Your task to perform on an android device: Open battery settings Image 0: 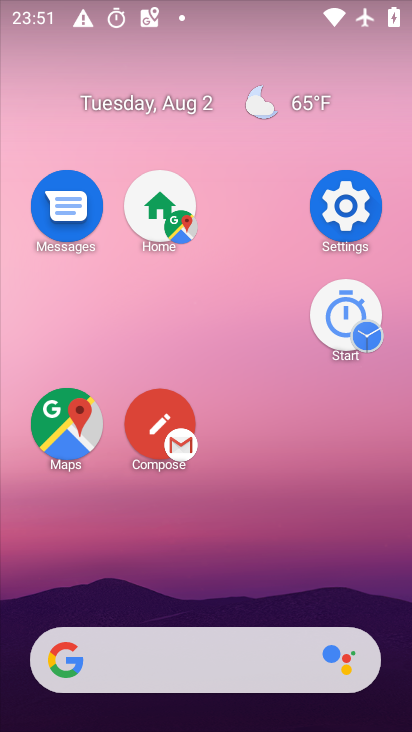
Step 0: drag from (201, 300) to (205, 213)
Your task to perform on an android device: Open battery settings Image 1: 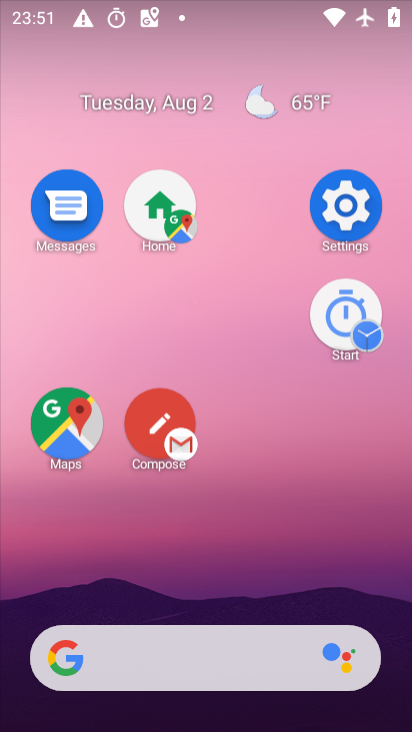
Step 1: drag from (250, 294) to (248, 236)
Your task to perform on an android device: Open battery settings Image 2: 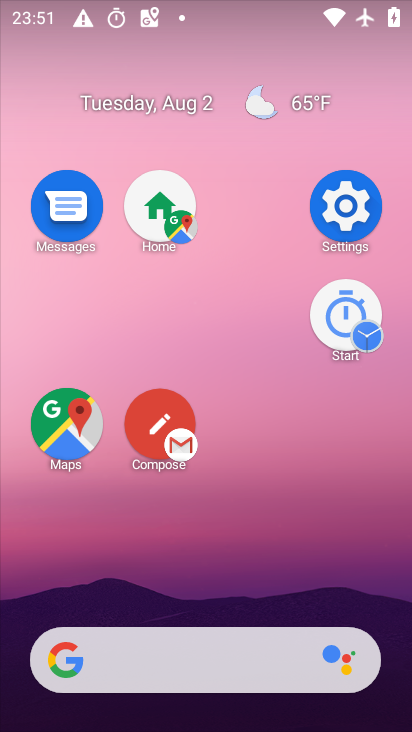
Step 2: drag from (277, 496) to (247, 267)
Your task to perform on an android device: Open battery settings Image 3: 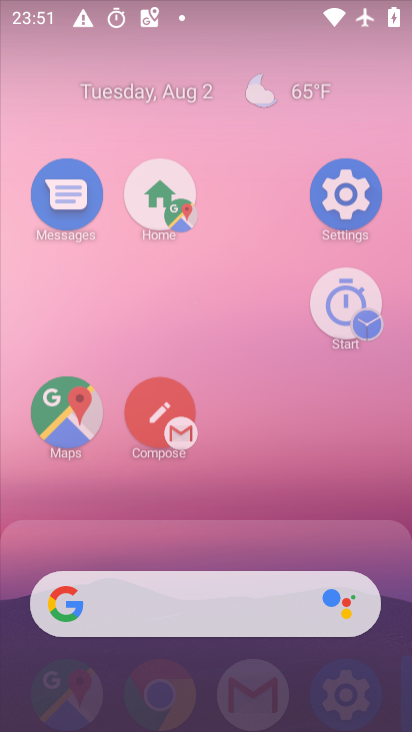
Step 3: drag from (272, 531) to (210, 3)
Your task to perform on an android device: Open battery settings Image 4: 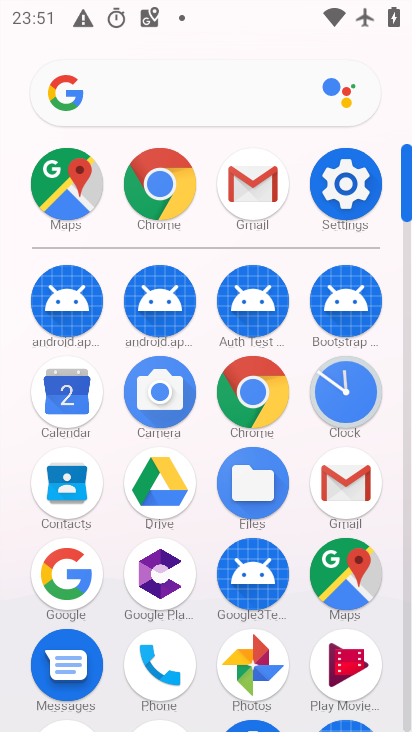
Step 4: click (348, 182)
Your task to perform on an android device: Open battery settings Image 5: 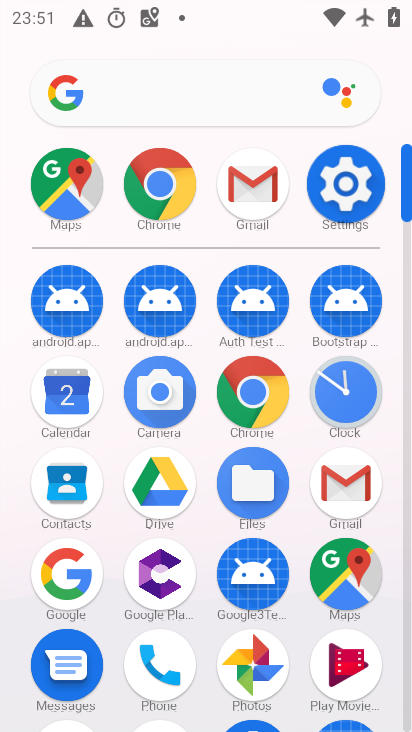
Step 5: click (348, 182)
Your task to perform on an android device: Open battery settings Image 6: 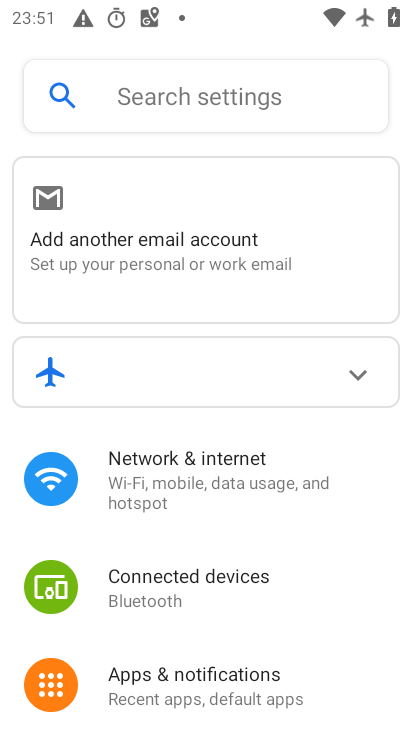
Step 6: drag from (154, 615) to (138, 359)
Your task to perform on an android device: Open battery settings Image 7: 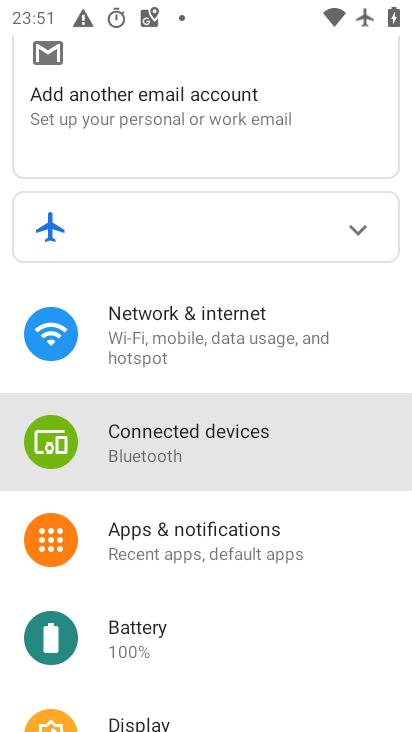
Step 7: drag from (182, 517) to (170, 160)
Your task to perform on an android device: Open battery settings Image 8: 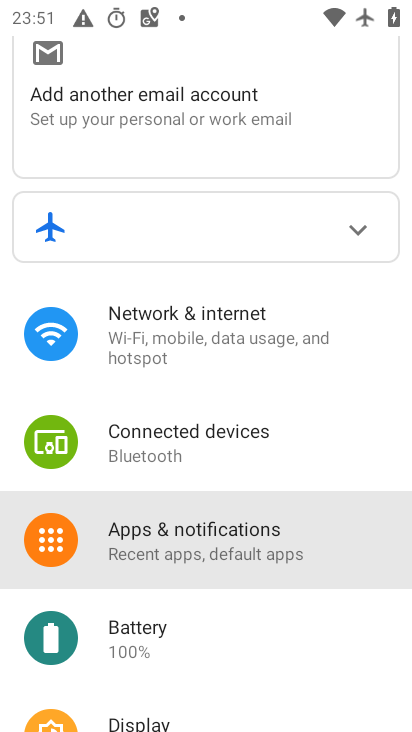
Step 8: drag from (181, 412) to (198, 96)
Your task to perform on an android device: Open battery settings Image 9: 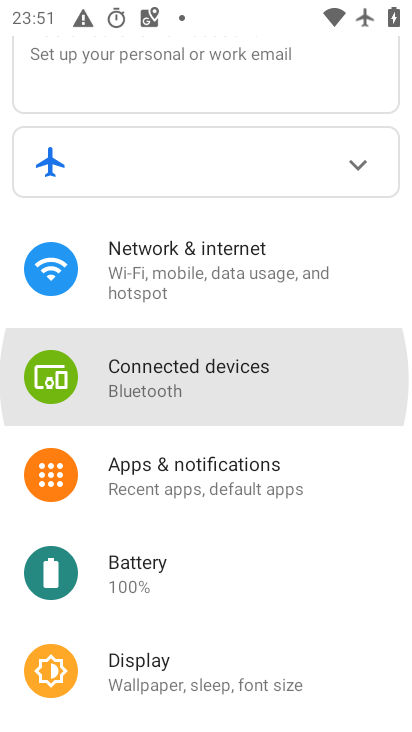
Step 9: drag from (229, 519) to (221, 204)
Your task to perform on an android device: Open battery settings Image 10: 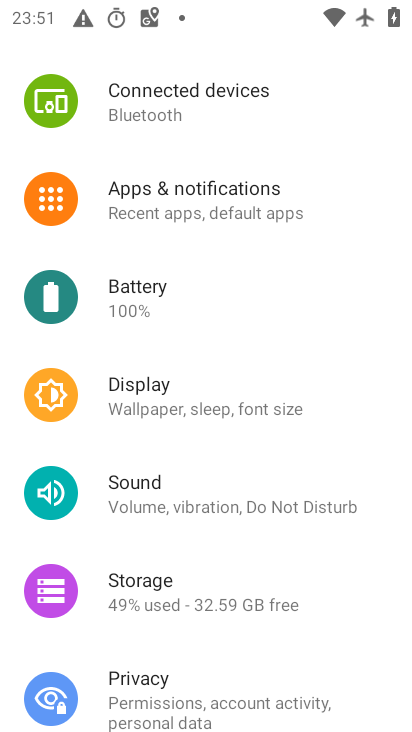
Step 10: click (124, 303)
Your task to perform on an android device: Open battery settings Image 11: 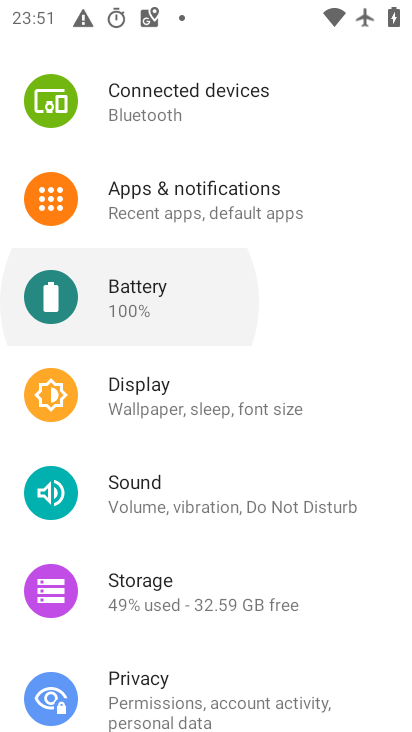
Step 11: click (125, 302)
Your task to perform on an android device: Open battery settings Image 12: 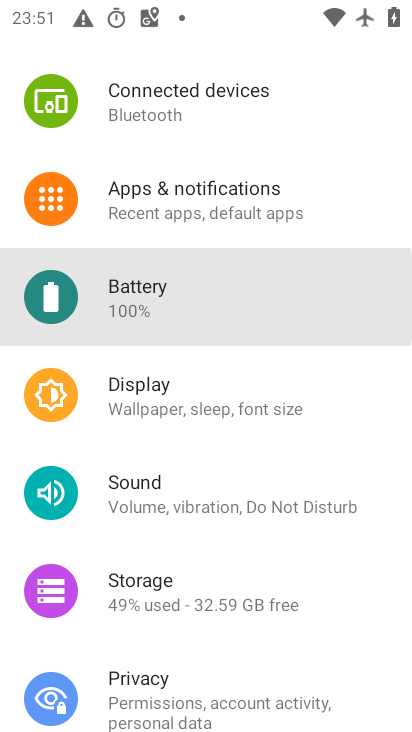
Step 12: click (125, 302)
Your task to perform on an android device: Open battery settings Image 13: 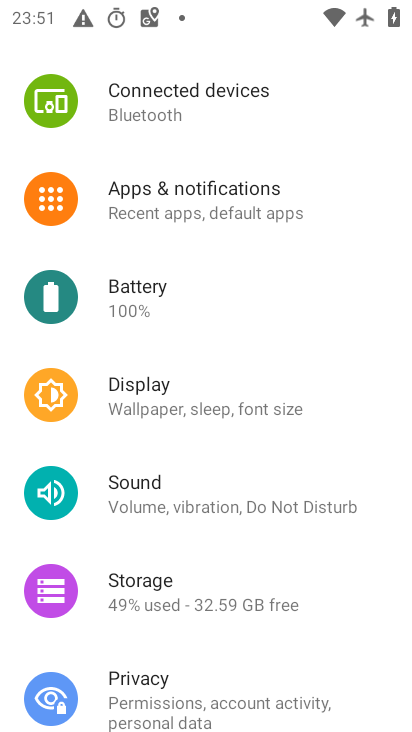
Step 13: click (125, 302)
Your task to perform on an android device: Open battery settings Image 14: 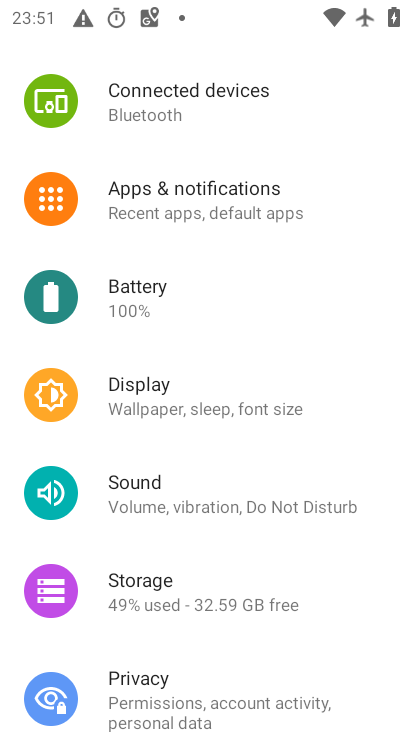
Step 14: click (125, 302)
Your task to perform on an android device: Open battery settings Image 15: 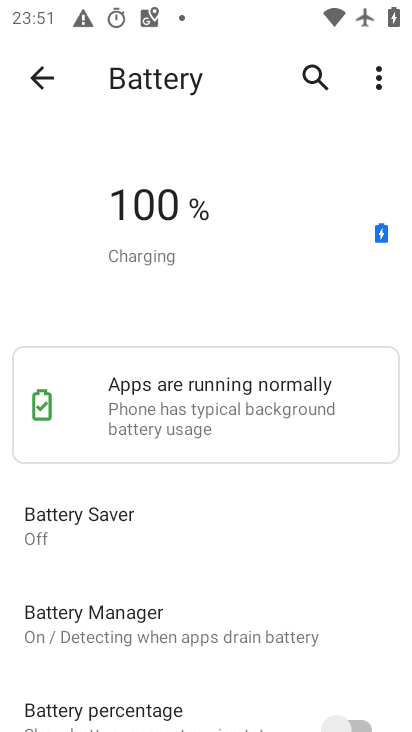
Step 15: task complete